Your task to perform on an android device: Show me popular videos on Youtube Image 0: 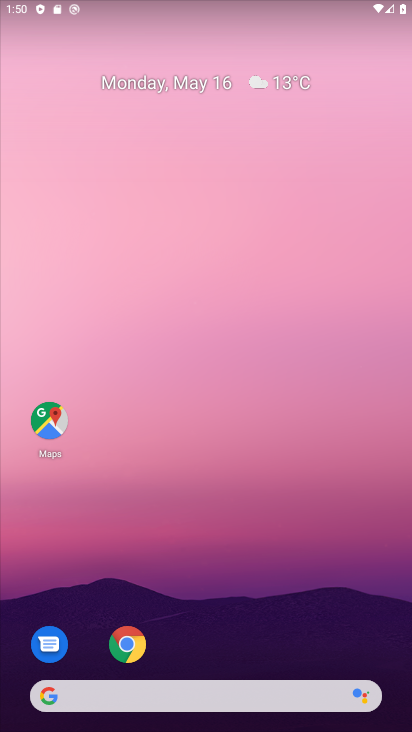
Step 0: drag from (235, 672) to (311, 106)
Your task to perform on an android device: Show me popular videos on Youtube Image 1: 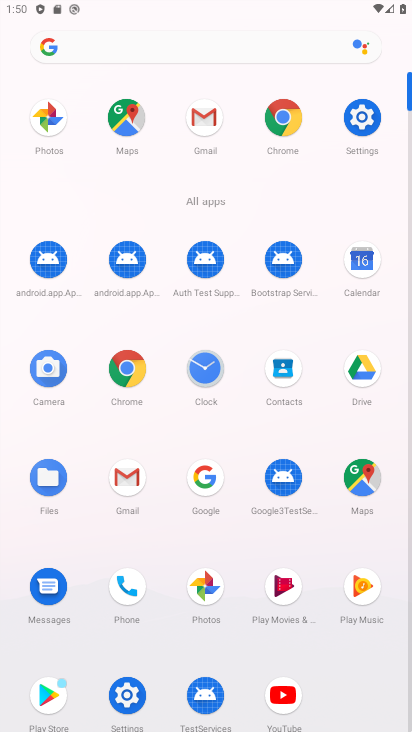
Step 1: click (281, 678)
Your task to perform on an android device: Show me popular videos on Youtube Image 2: 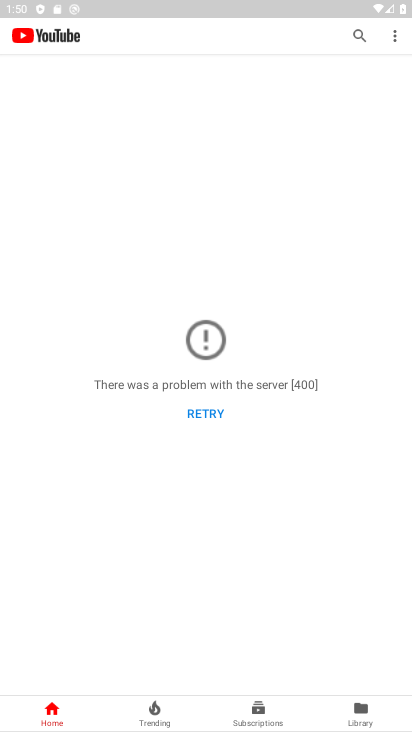
Step 2: click (204, 409)
Your task to perform on an android device: Show me popular videos on Youtube Image 3: 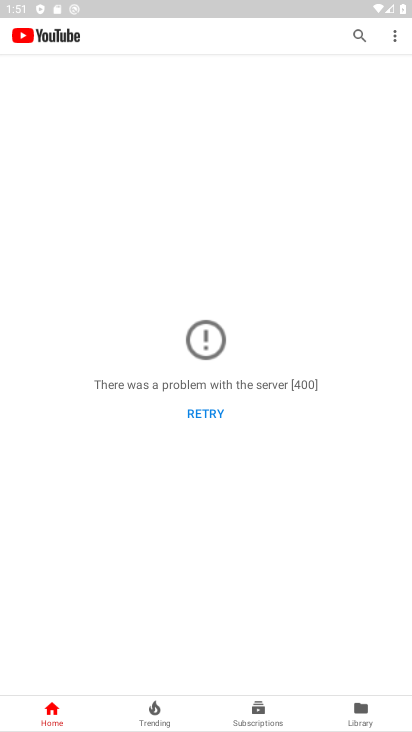
Step 3: click (147, 720)
Your task to perform on an android device: Show me popular videos on Youtube Image 4: 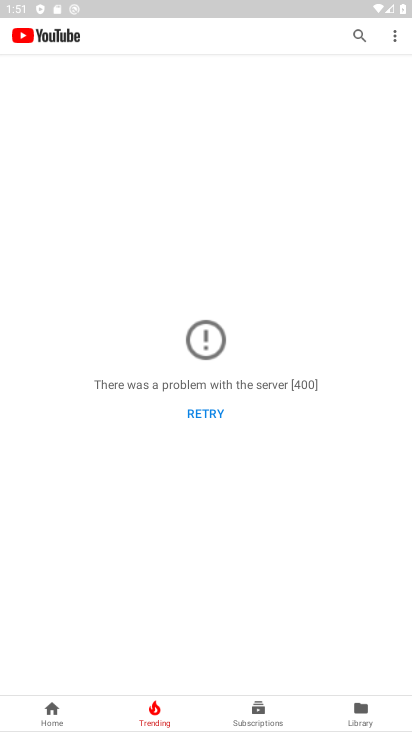
Step 4: click (147, 720)
Your task to perform on an android device: Show me popular videos on Youtube Image 5: 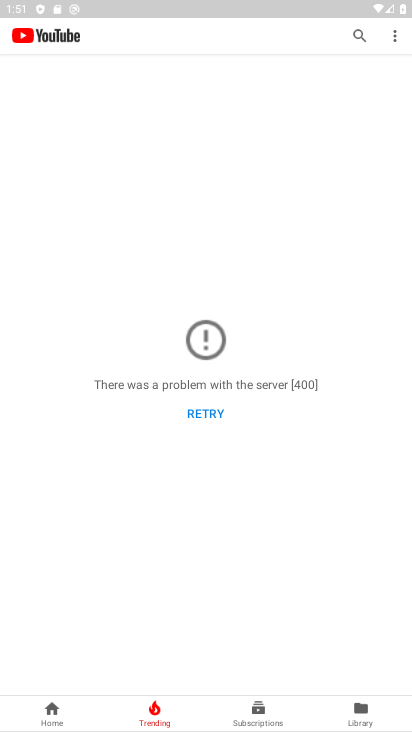
Step 5: task complete